Your task to perform on an android device: turn on the 24-hour format for clock Image 0: 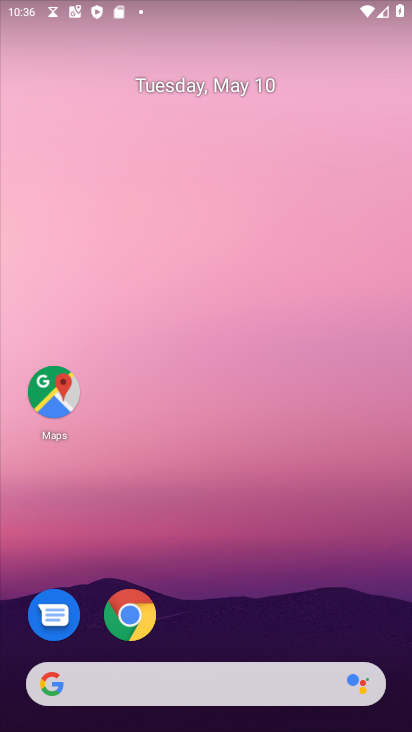
Step 0: drag from (276, 547) to (238, 83)
Your task to perform on an android device: turn on the 24-hour format for clock Image 1: 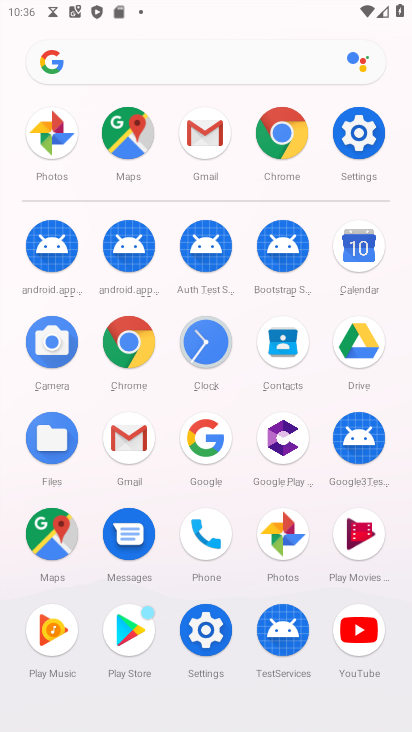
Step 1: click (204, 342)
Your task to perform on an android device: turn on the 24-hour format for clock Image 2: 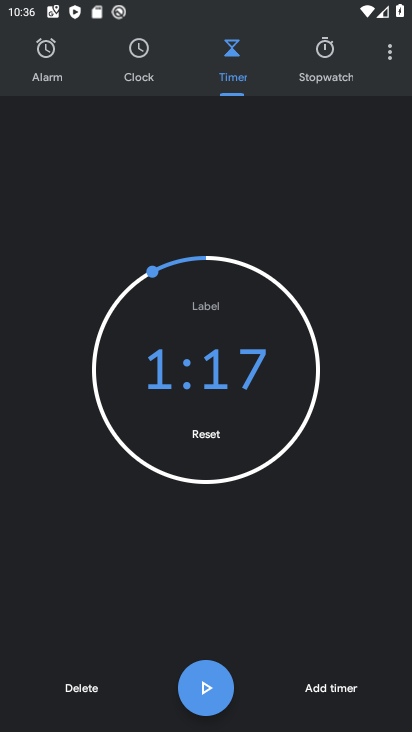
Step 2: click (392, 50)
Your task to perform on an android device: turn on the 24-hour format for clock Image 3: 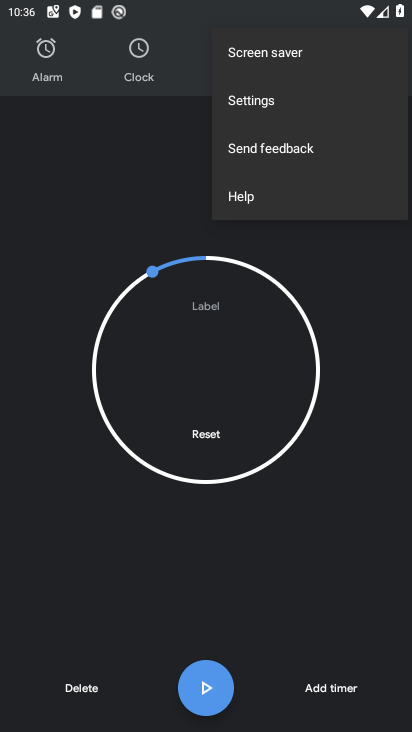
Step 3: click (274, 103)
Your task to perform on an android device: turn on the 24-hour format for clock Image 4: 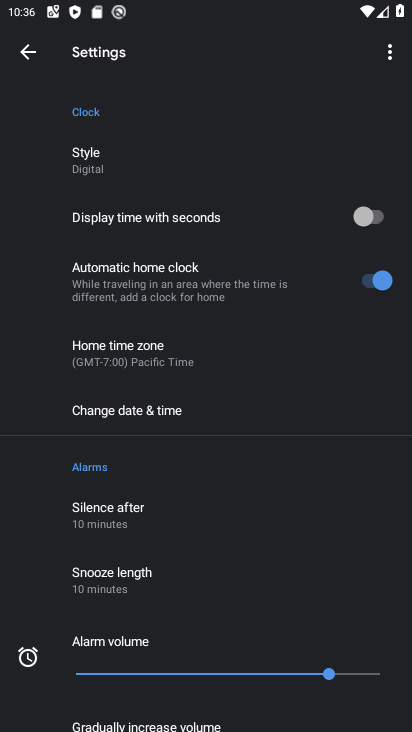
Step 4: click (179, 412)
Your task to perform on an android device: turn on the 24-hour format for clock Image 5: 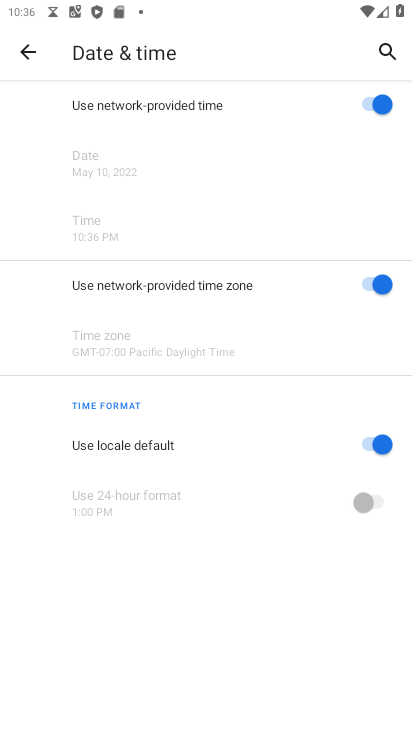
Step 5: click (392, 439)
Your task to perform on an android device: turn on the 24-hour format for clock Image 6: 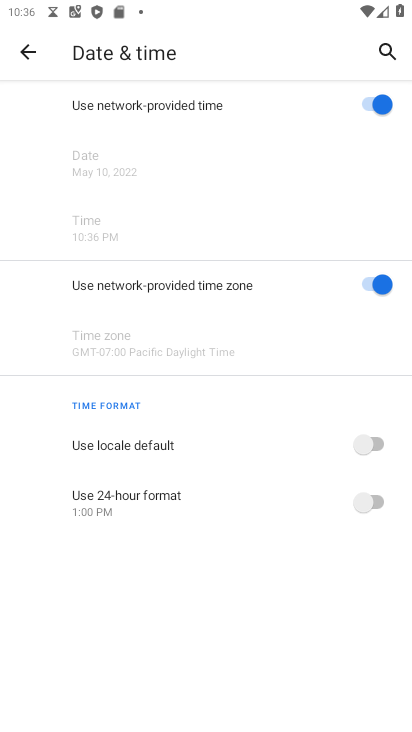
Step 6: click (372, 500)
Your task to perform on an android device: turn on the 24-hour format for clock Image 7: 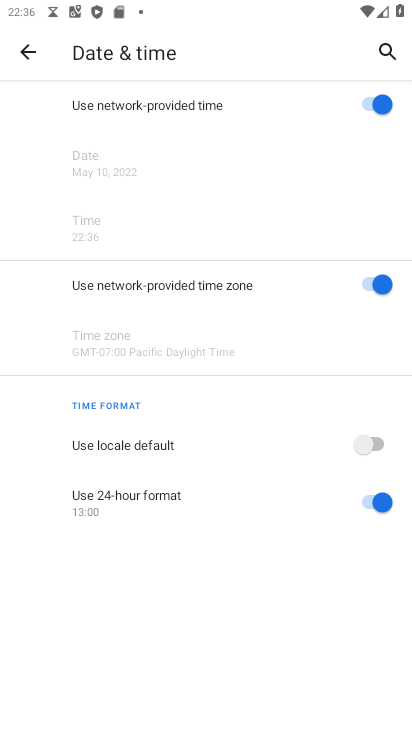
Step 7: task complete